Your task to perform on an android device: make emails show in primary in the gmail app Image 0: 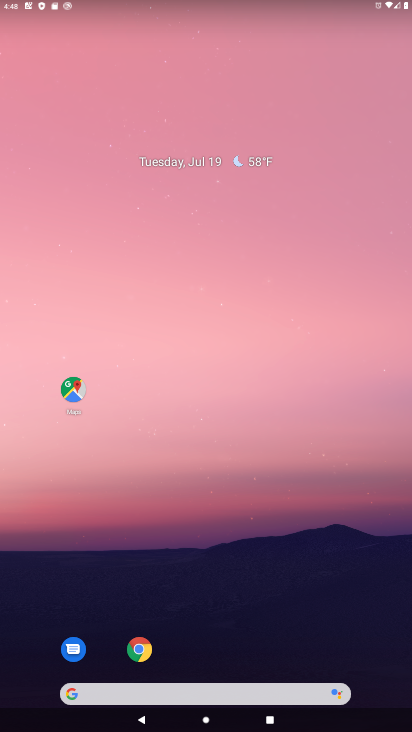
Step 0: drag from (218, 589) to (229, 172)
Your task to perform on an android device: make emails show in primary in the gmail app Image 1: 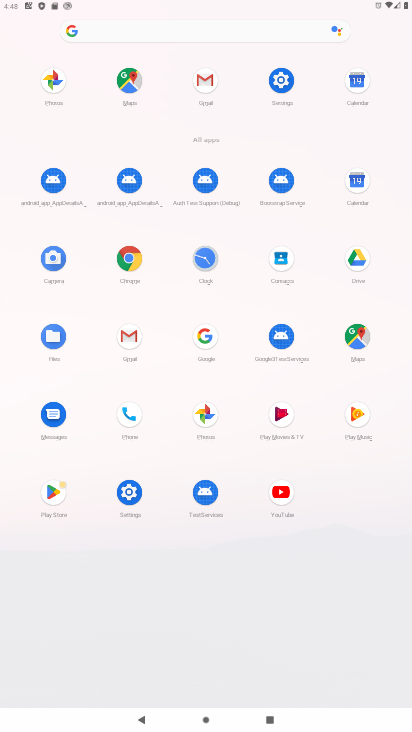
Step 1: click (201, 82)
Your task to perform on an android device: make emails show in primary in the gmail app Image 2: 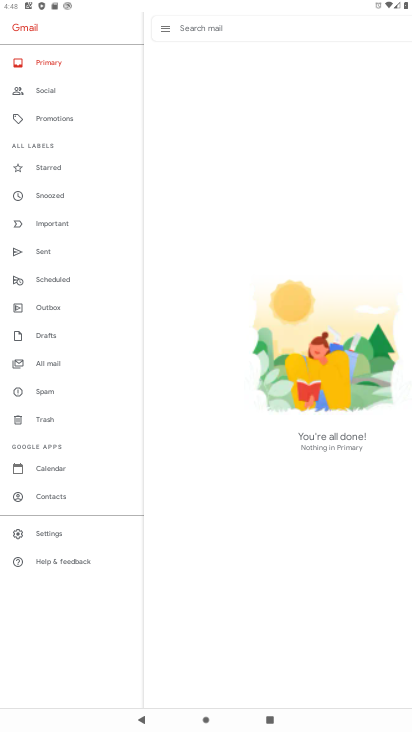
Step 2: click (52, 531)
Your task to perform on an android device: make emails show in primary in the gmail app Image 3: 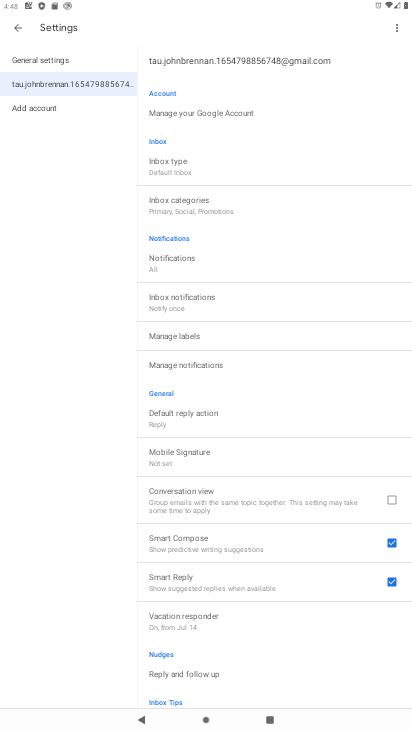
Step 3: click (174, 211)
Your task to perform on an android device: make emails show in primary in the gmail app Image 4: 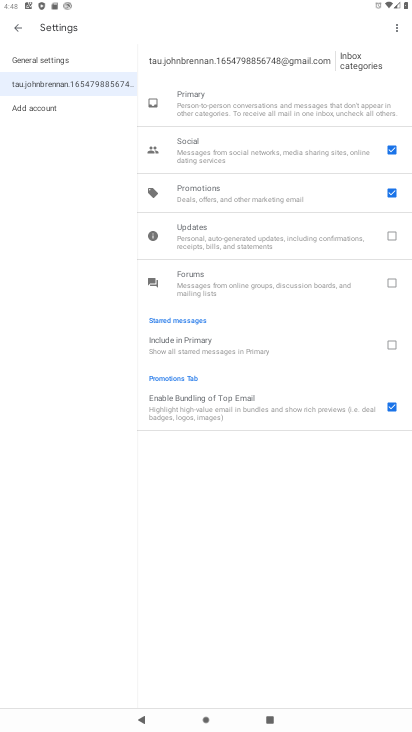
Step 4: click (396, 171)
Your task to perform on an android device: make emails show in primary in the gmail app Image 5: 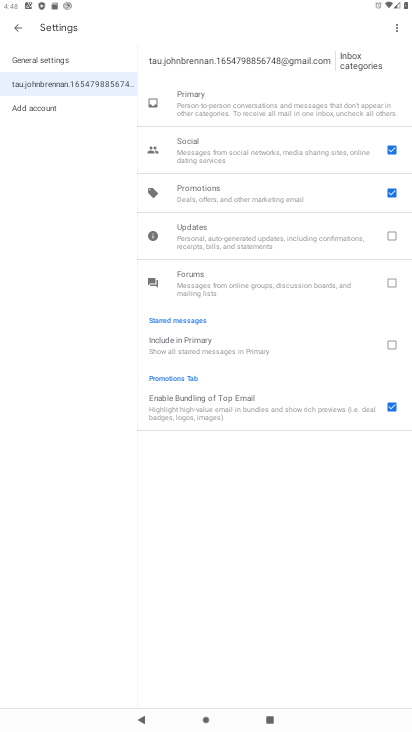
Step 5: click (396, 149)
Your task to perform on an android device: make emails show in primary in the gmail app Image 6: 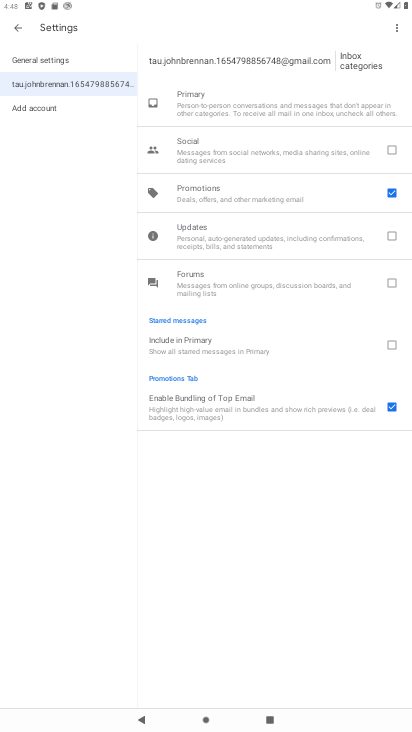
Step 6: click (392, 406)
Your task to perform on an android device: make emails show in primary in the gmail app Image 7: 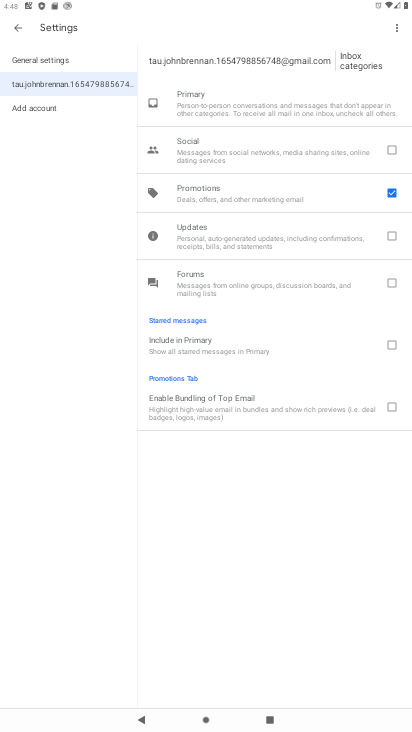
Step 7: click (20, 29)
Your task to perform on an android device: make emails show in primary in the gmail app Image 8: 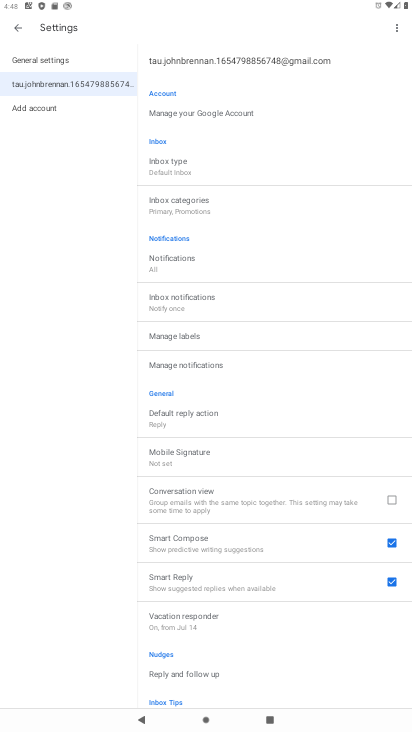
Step 8: task complete